Your task to perform on an android device: Go to CNN.com Image 0: 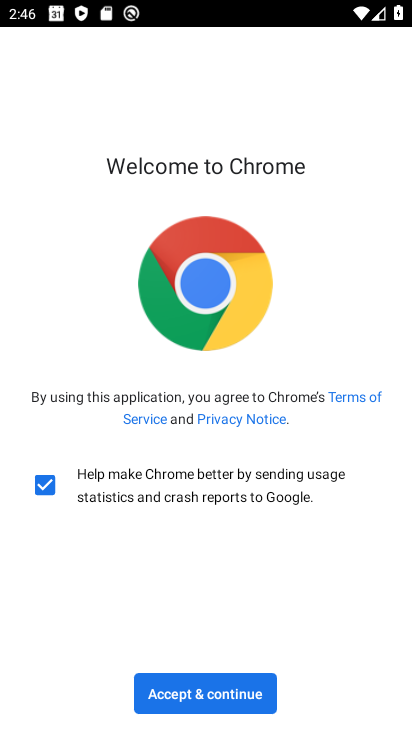
Step 0: click (222, 688)
Your task to perform on an android device: Go to CNN.com Image 1: 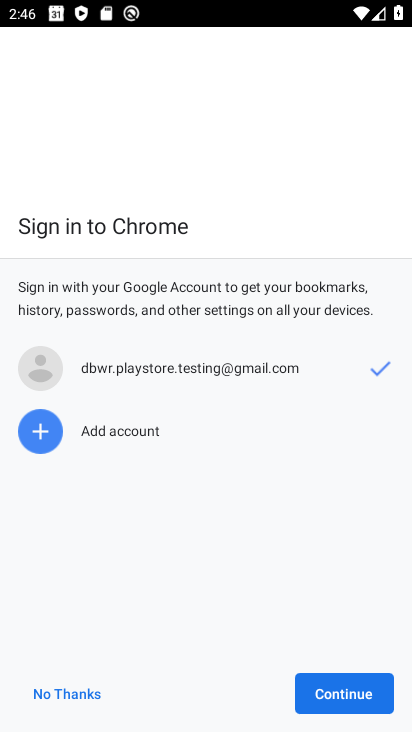
Step 1: click (343, 691)
Your task to perform on an android device: Go to CNN.com Image 2: 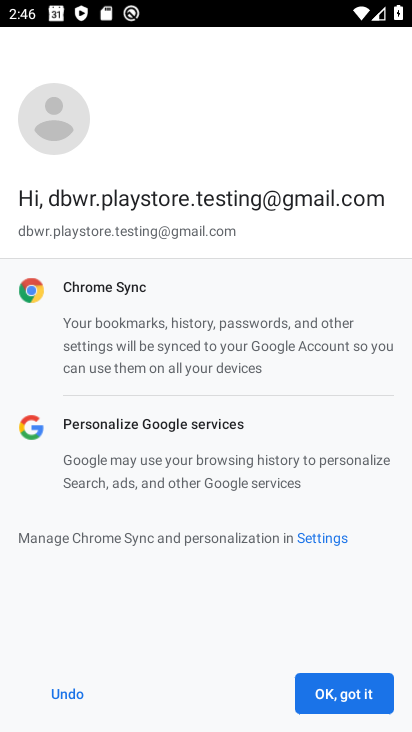
Step 2: click (347, 693)
Your task to perform on an android device: Go to CNN.com Image 3: 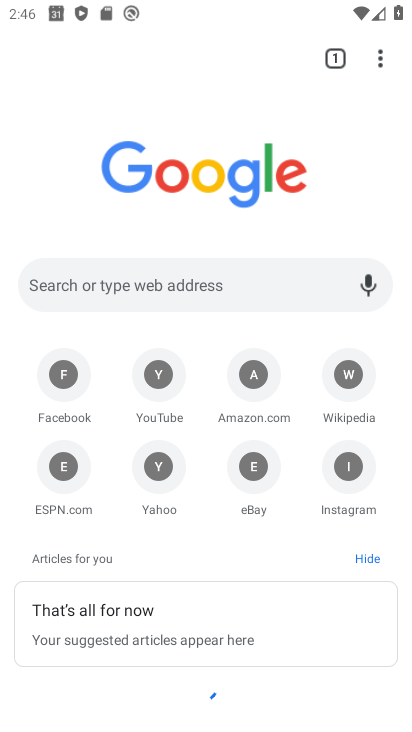
Step 3: click (228, 279)
Your task to perform on an android device: Go to CNN.com Image 4: 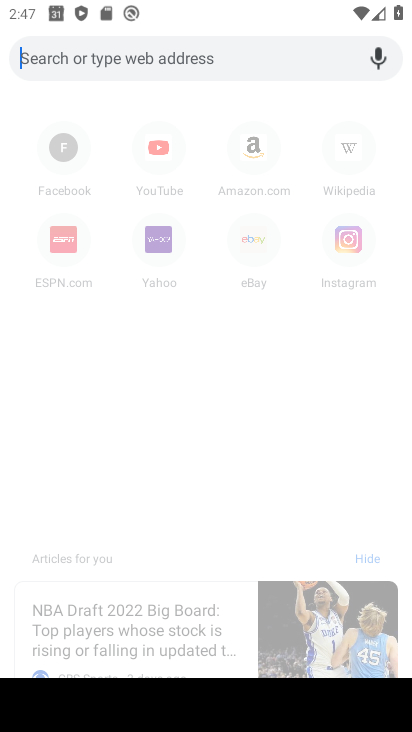
Step 4: type "CNN.com"
Your task to perform on an android device: Go to CNN.com Image 5: 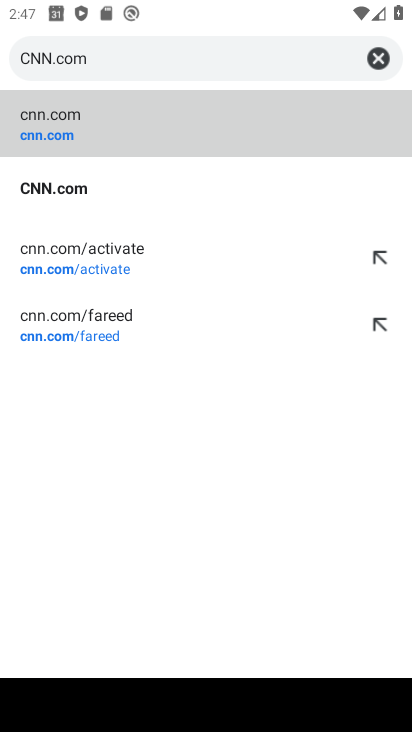
Step 5: click (53, 118)
Your task to perform on an android device: Go to CNN.com Image 6: 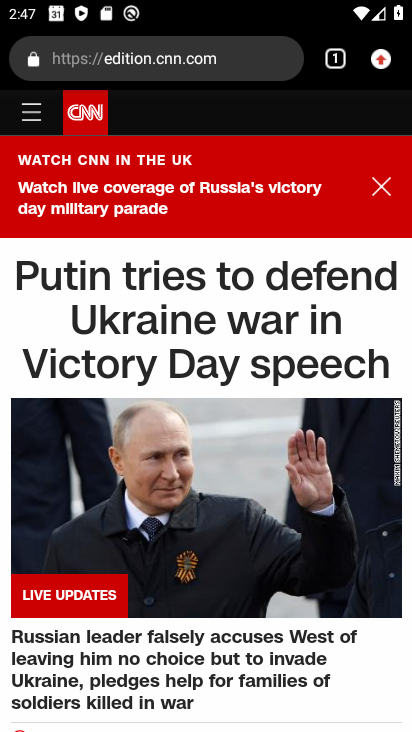
Step 6: task complete